Your task to perform on an android device: Toggle the flashlight Image 0: 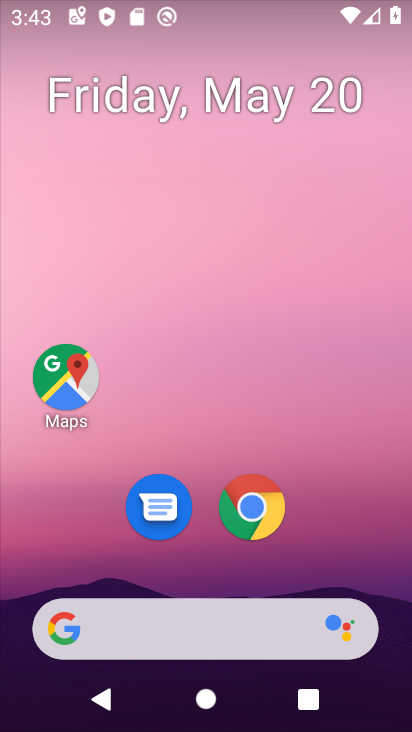
Step 0: drag from (307, 533) to (175, 133)
Your task to perform on an android device: Toggle the flashlight Image 1: 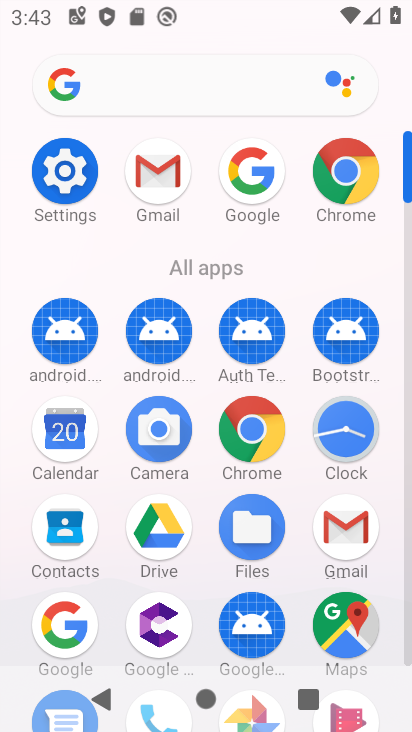
Step 1: drag from (195, 566) to (175, 343)
Your task to perform on an android device: Toggle the flashlight Image 2: 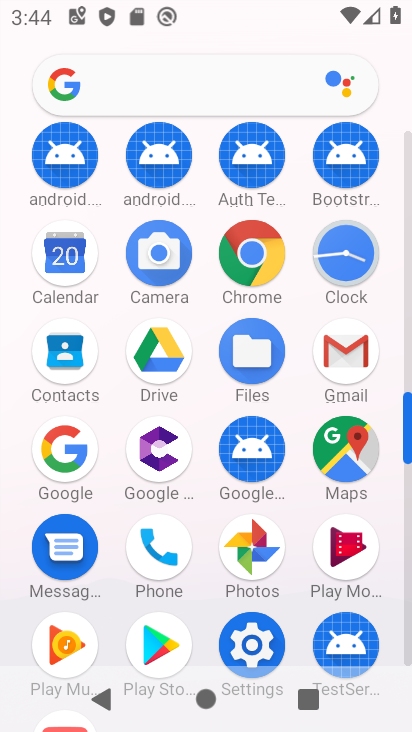
Step 2: drag from (212, 513) to (203, 324)
Your task to perform on an android device: Toggle the flashlight Image 3: 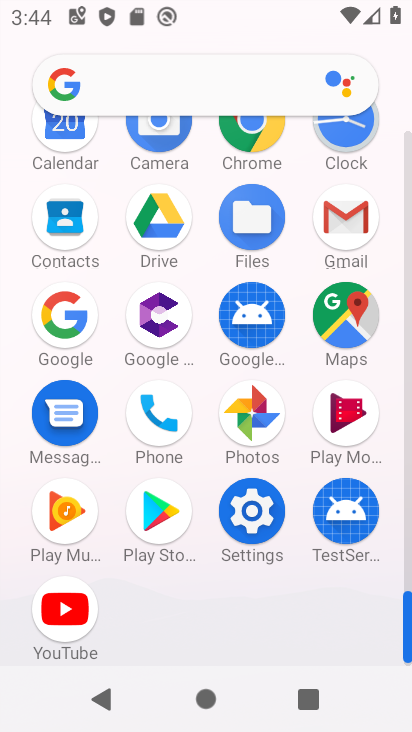
Step 3: click (252, 509)
Your task to perform on an android device: Toggle the flashlight Image 4: 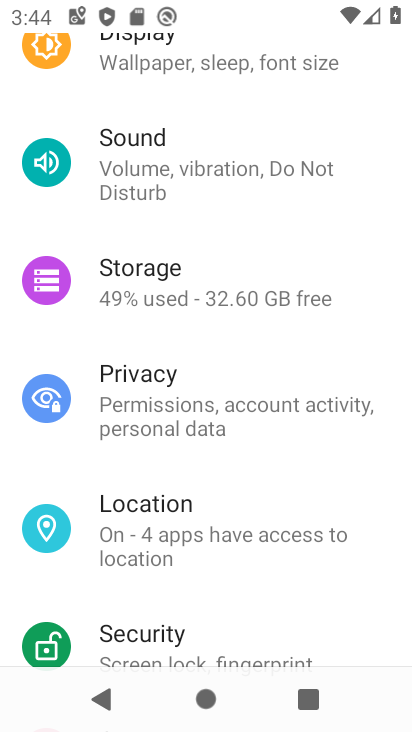
Step 4: drag from (231, 258) to (282, 377)
Your task to perform on an android device: Toggle the flashlight Image 5: 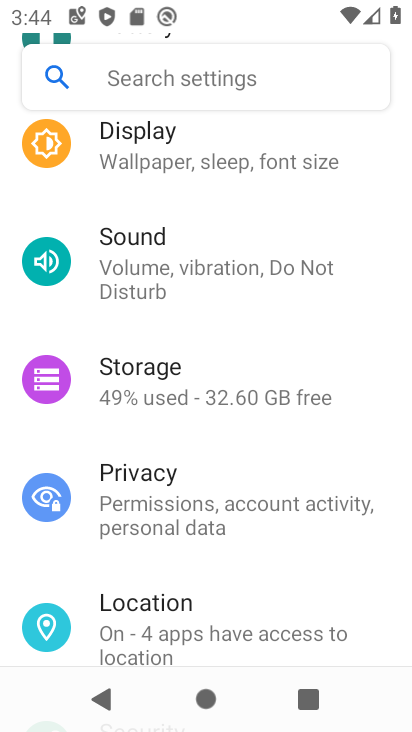
Step 5: drag from (242, 249) to (272, 378)
Your task to perform on an android device: Toggle the flashlight Image 6: 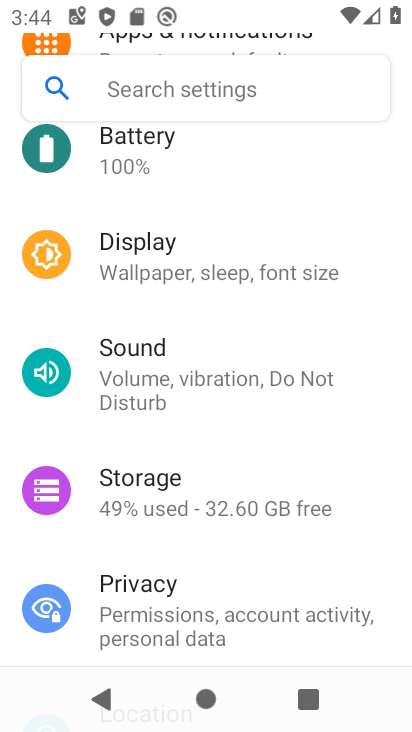
Step 6: drag from (212, 209) to (241, 334)
Your task to perform on an android device: Toggle the flashlight Image 7: 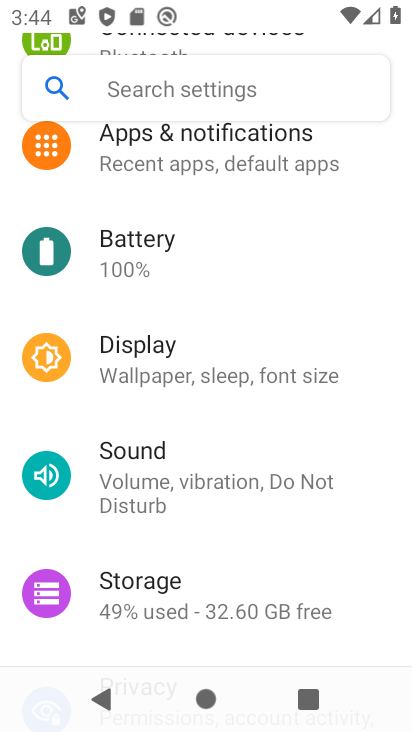
Step 7: drag from (202, 304) to (204, 215)
Your task to perform on an android device: Toggle the flashlight Image 8: 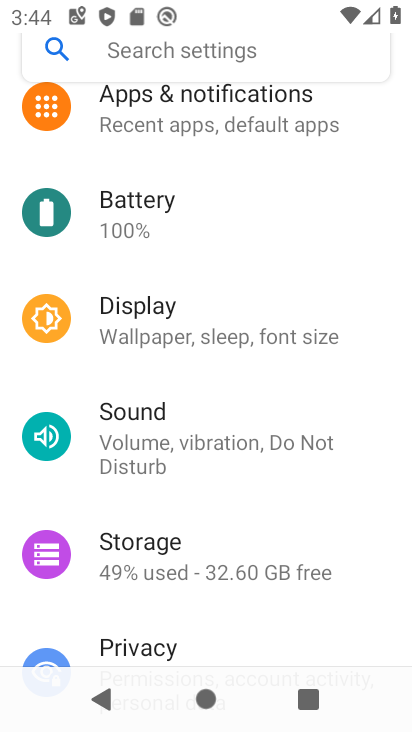
Step 8: drag from (183, 382) to (217, 295)
Your task to perform on an android device: Toggle the flashlight Image 9: 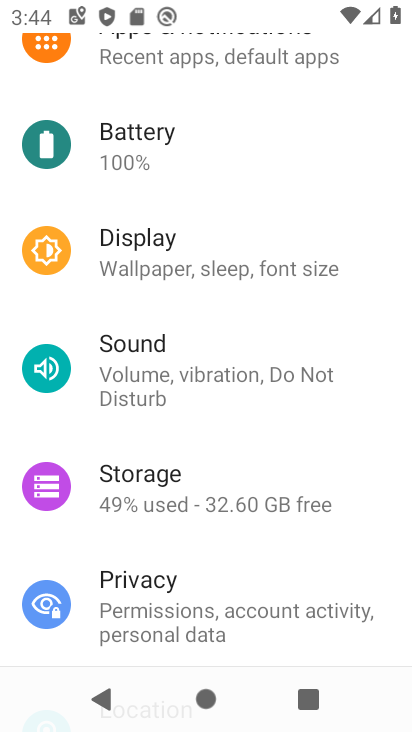
Step 9: drag from (200, 416) to (214, 275)
Your task to perform on an android device: Toggle the flashlight Image 10: 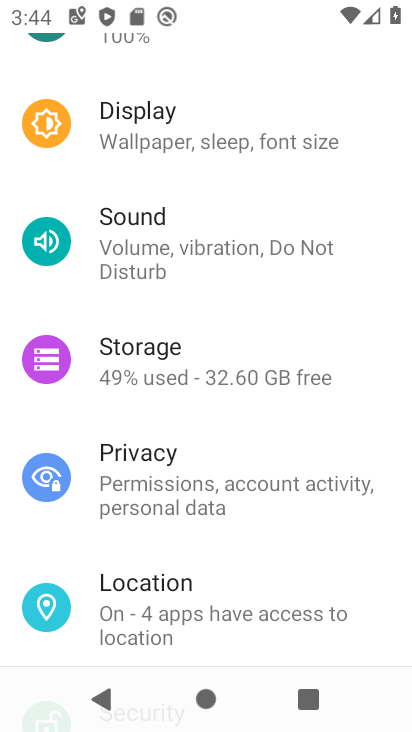
Step 10: drag from (194, 502) to (230, 287)
Your task to perform on an android device: Toggle the flashlight Image 11: 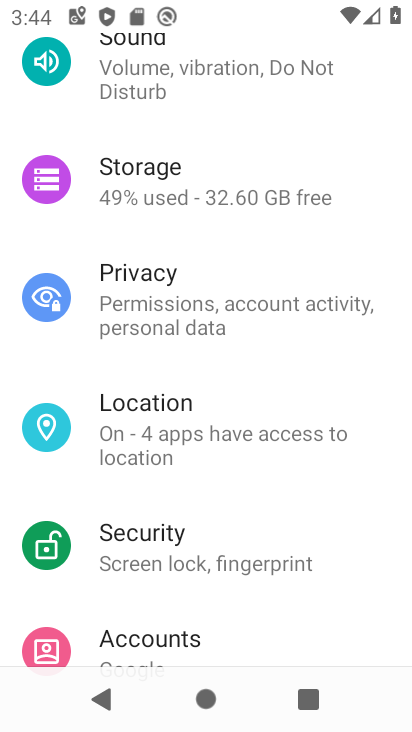
Step 11: drag from (214, 524) to (238, 424)
Your task to perform on an android device: Toggle the flashlight Image 12: 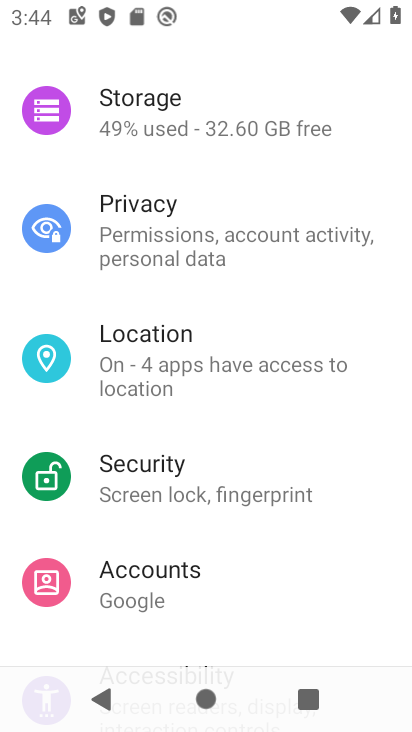
Step 12: drag from (235, 582) to (262, 428)
Your task to perform on an android device: Toggle the flashlight Image 13: 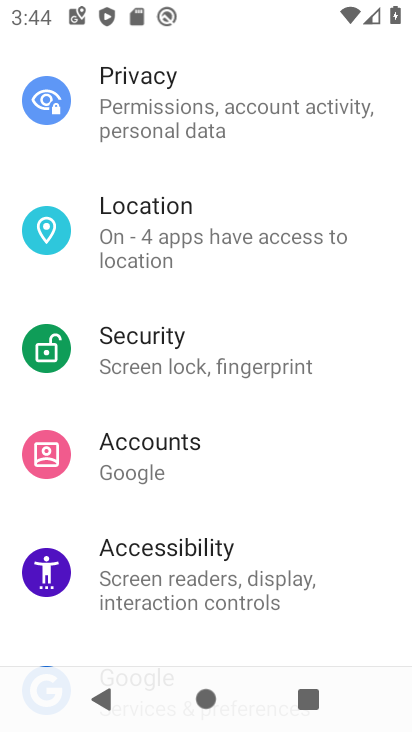
Step 13: drag from (215, 574) to (246, 449)
Your task to perform on an android device: Toggle the flashlight Image 14: 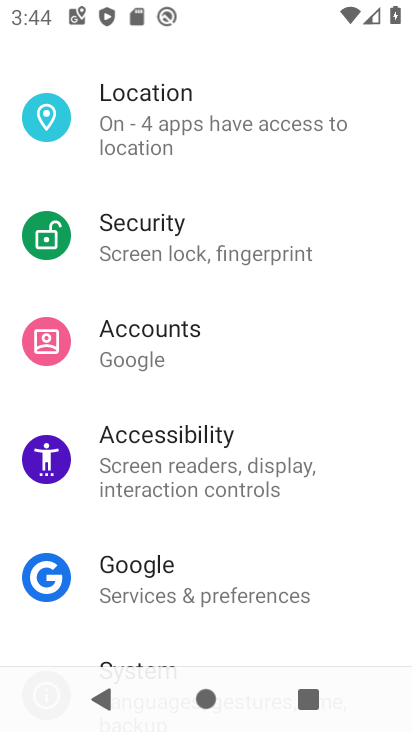
Step 14: drag from (194, 530) to (211, 417)
Your task to perform on an android device: Toggle the flashlight Image 15: 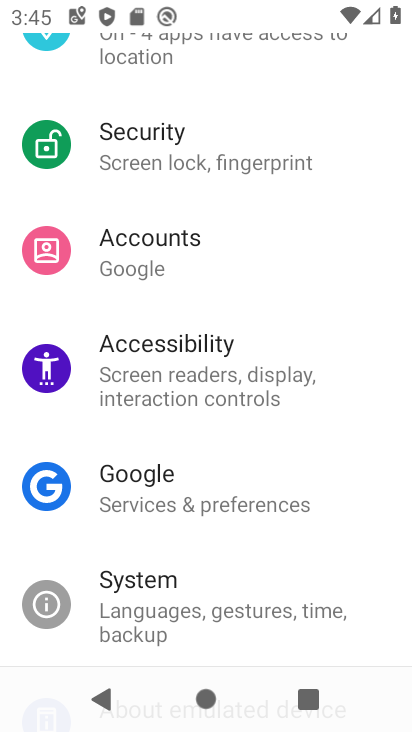
Step 15: click (196, 398)
Your task to perform on an android device: Toggle the flashlight Image 16: 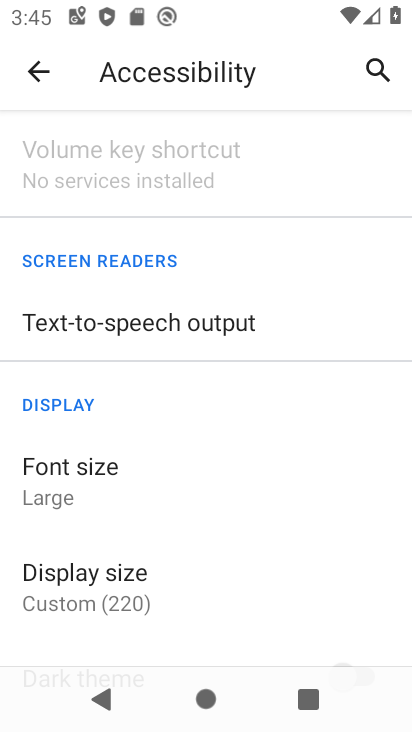
Step 16: task complete